Your task to perform on an android device: turn on airplane mode Image 0: 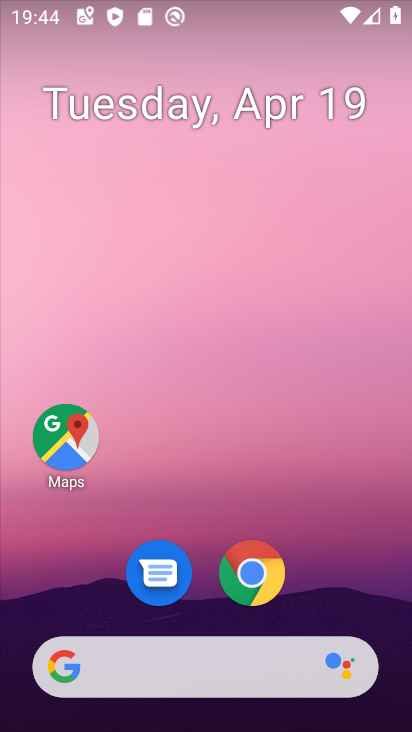
Step 0: drag from (369, 613) to (300, 91)
Your task to perform on an android device: turn on airplane mode Image 1: 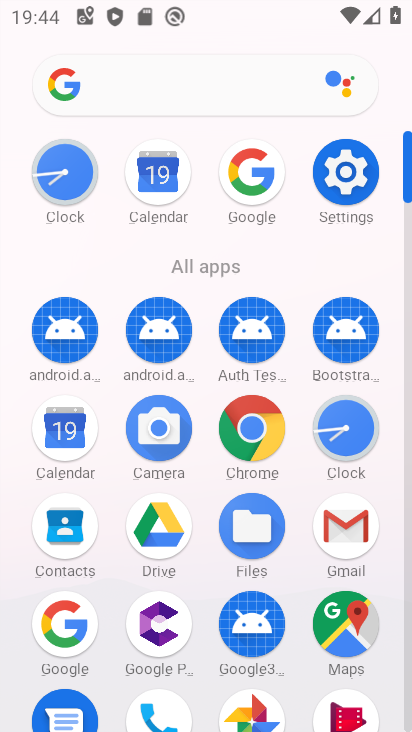
Step 1: click (350, 170)
Your task to perform on an android device: turn on airplane mode Image 2: 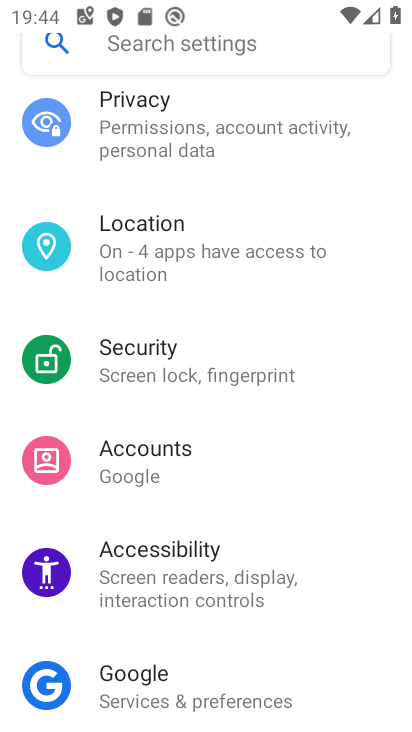
Step 2: drag from (350, 512) to (337, 686)
Your task to perform on an android device: turn on airplane mode Image 3: 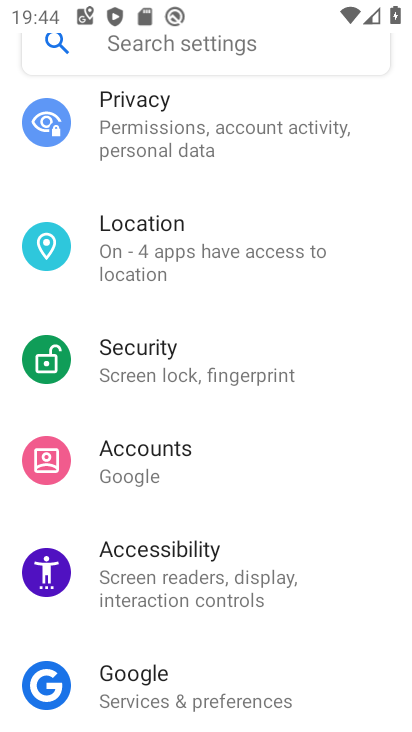
Step 3: drag from (386, 430) to (370, 607)
Your task to perform on an android device: turn on airplane mode Image 4: 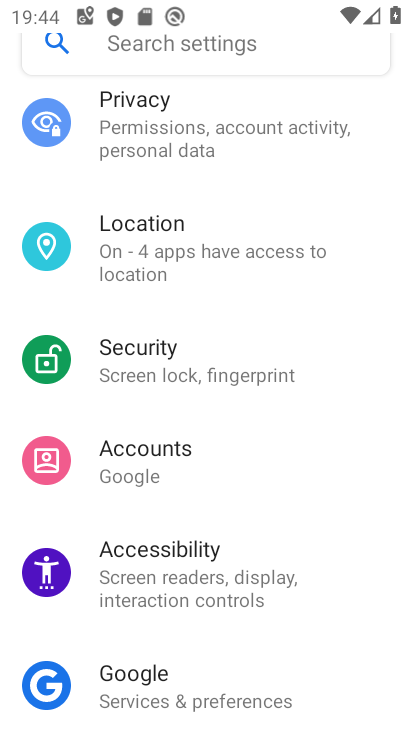
Step 4: drag from (376, 560) to (374, 629)
Your task to perform on an android device: turn on airplane mode Image 5: 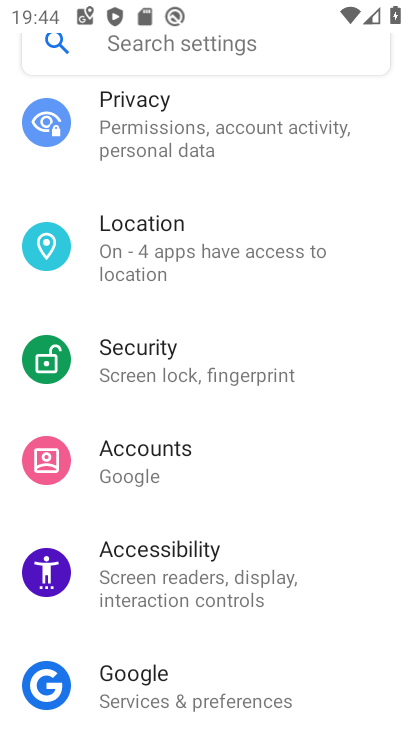
Step 5: press back button
Your task to perform on an android device: turn on airplane mode Image 6: 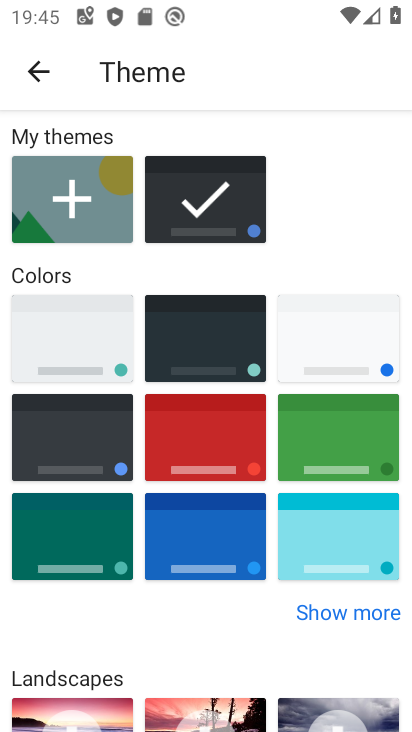
Step 6: press home button
Your task to perform on an android device: turn on airplane mode Image 7: 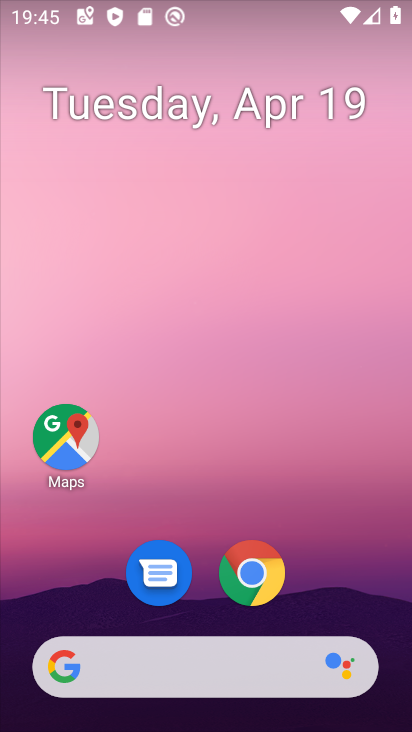
Step 7: drag from (370, 571) to (317, 305)
Your task to perform on an android device: turn on airplane mode Image 8: 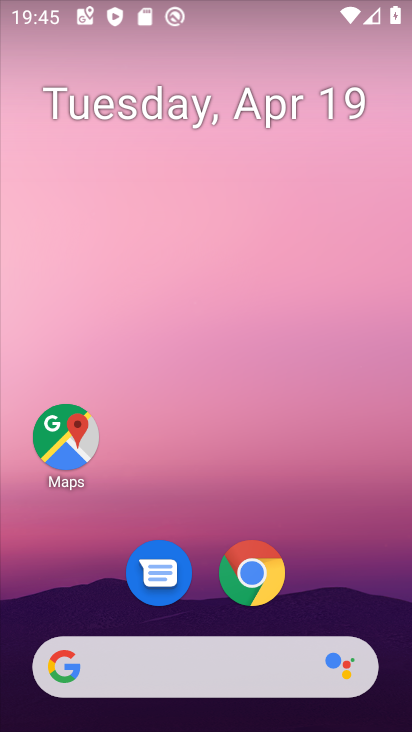
Step 8: drag from (382, 611) to (243, 13)
Your task to perform on an android device: turn on airplane mode Image 9: 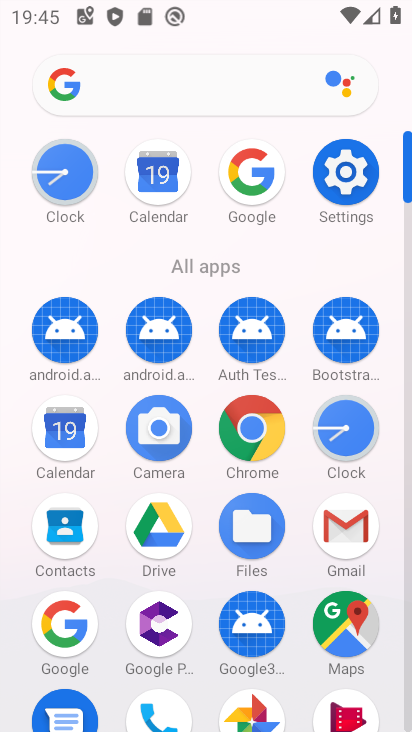
Step 9: click (344, 170)
Your task to perform on an android device: turn on airplane mode Image 10: 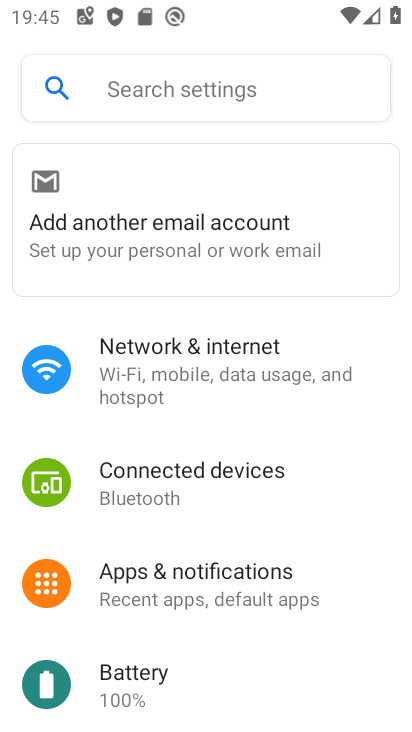
Step 10: click (183, 369)
Your task to perform on an android device: turn on airplane mode Image 11: 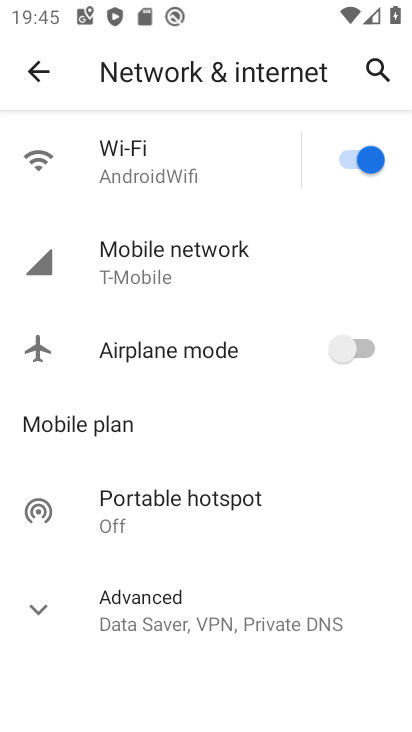
Step 11: click (362, 349)
Your task to perform on an android device: turn on airplane mode Image 12: 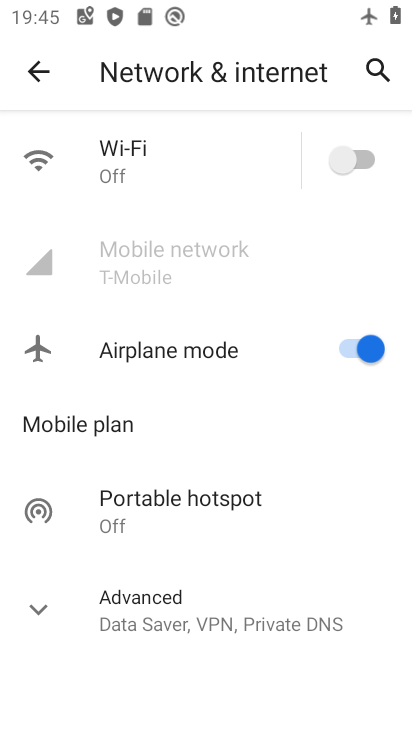
Step 12: task complete